Your task to perform on an android device: open the mobile data screen to see how much data has been used Image 0: 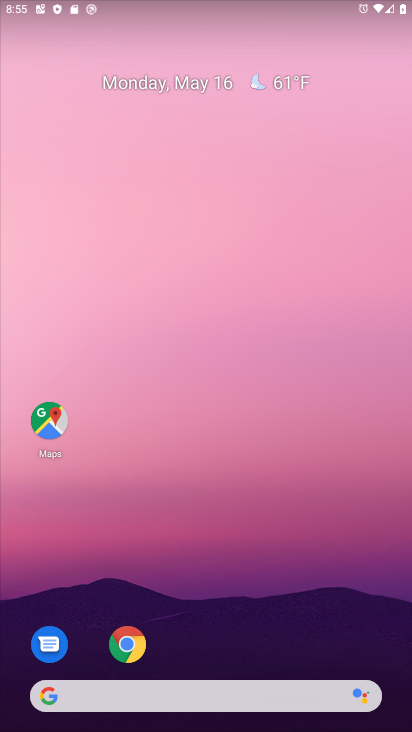
Step 0: drag from (270, 622) to (172, 4)
Your task to perform on an android device: open the mobile data screen to see how much data has been used Image 1: 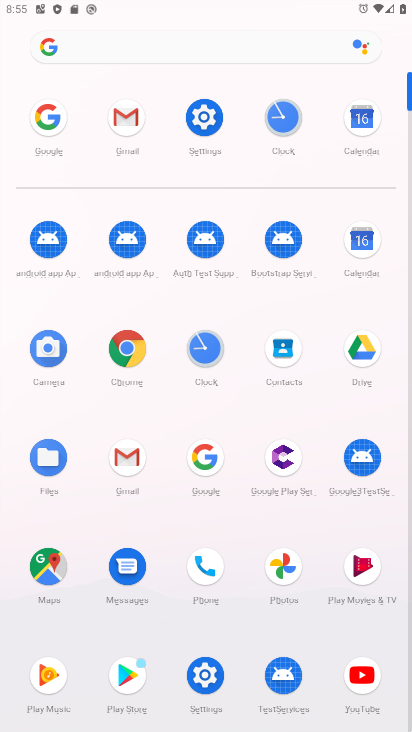
Step 1: click (205, 678)
Your task to perform on an android device: open the mobile data screen to see how much data has been used Image 2: 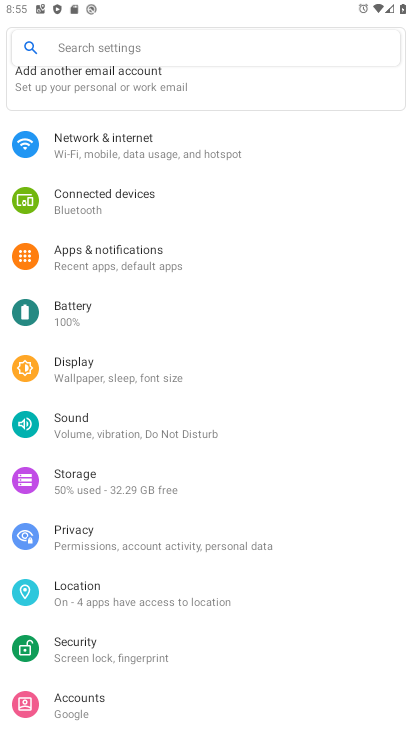
Step 2: click (121, 147)
Your task to perform on an android device: open the mobile data screen to see how much data has been used Image 3: 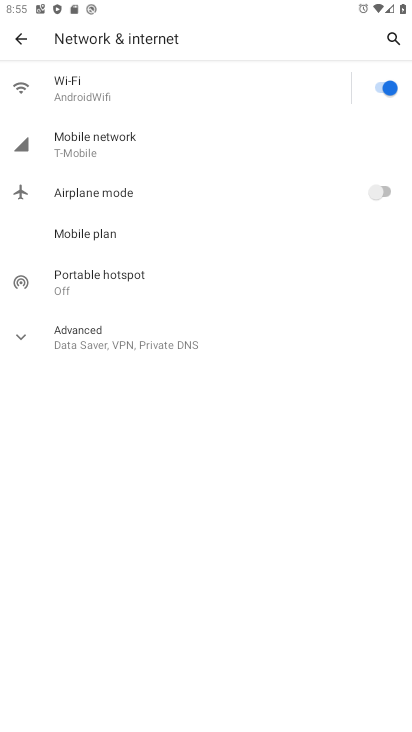
Step 3: click (136, 132)
Your task to perform on an android device: open the mobile data screen to see how much data has been used Image 4: 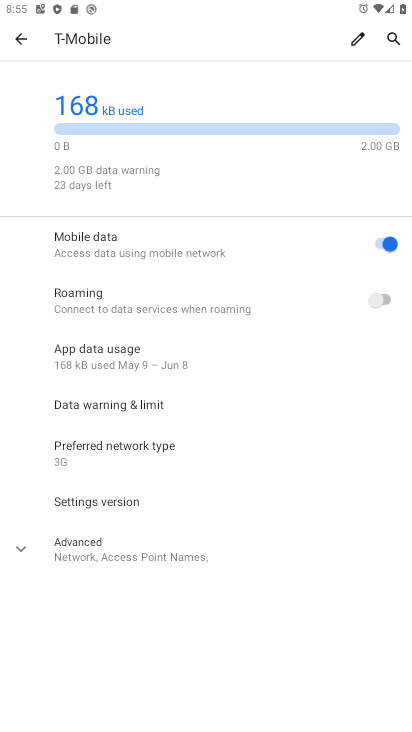
Step 4: click (136, 132)
Your task to perform on an android device: open the mobile data screen to see how much data has been used Image 5: 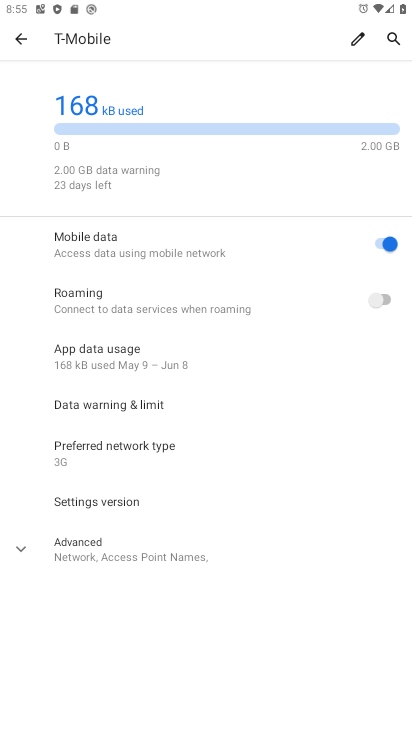
Step 5: click (260, 165)
Your task to perform on an android device: open the mobile data screen to see how much data has been used Image 6: 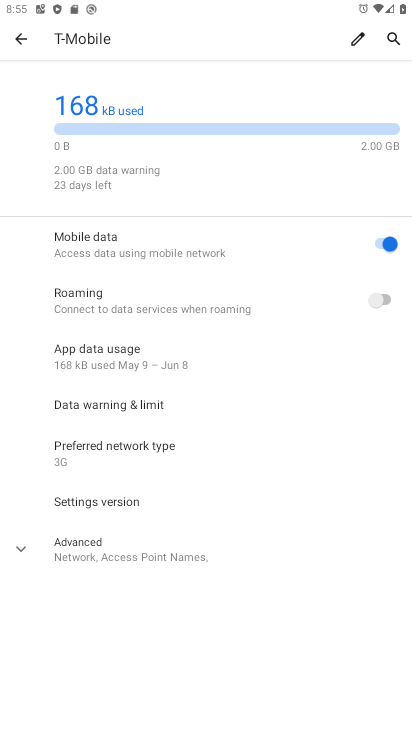
Step 6: click (248, 109)
Your task to perform on an android device: open the mobile data screen to see how much data has been used Image 7: 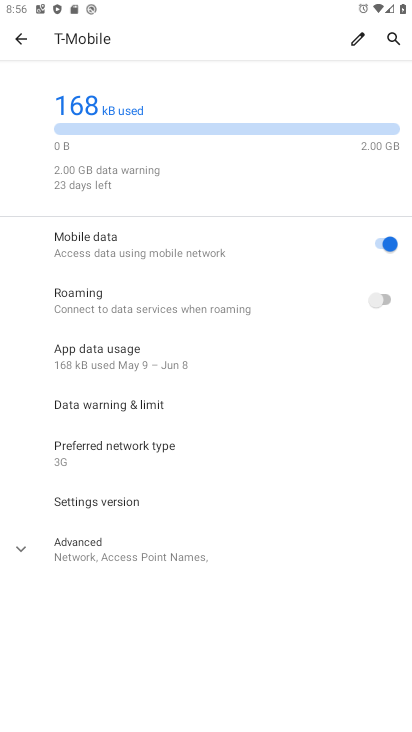
Step 7: click (155, 172)
Your task to perform on an android device: open the mobile data screen to see how much data has been used Image 8: 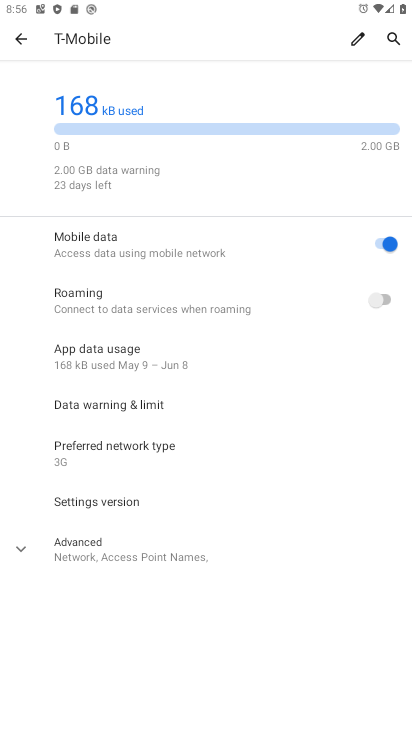
Step 8: click (155, 173)
Your task to perform on an android device: open the mobile data screen to see how much data has been used Image 9: 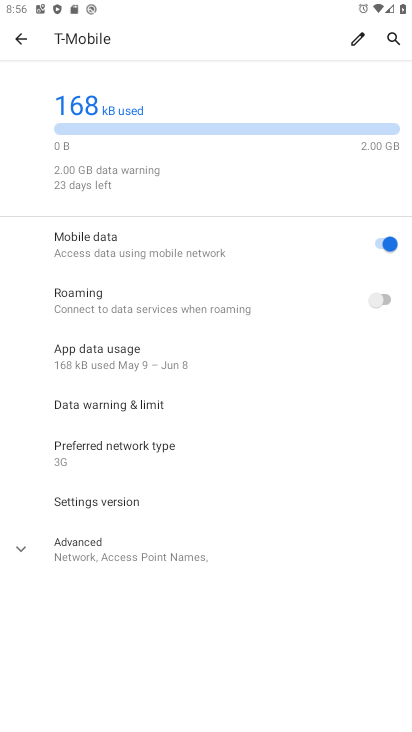
Step 9: task complete